Your task to perform on an android device: find which apps use the phone's location Image 0: 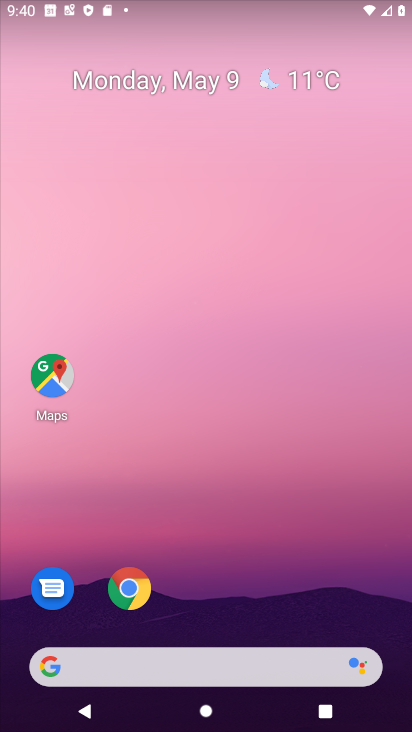
Step 0: drag from (230, 675) to (347, 250)
Your task to perform on an android device: find which apps use the phone's location Image 1: 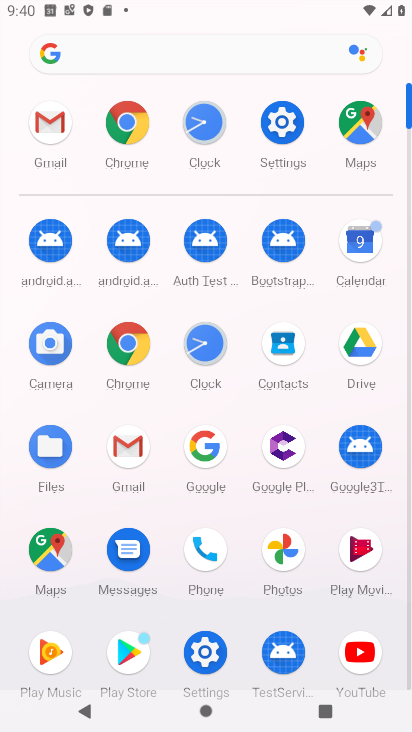
Step 1: click (285, 124)
Your task to perform on an android device: find which apps use the phone's location Image 2: 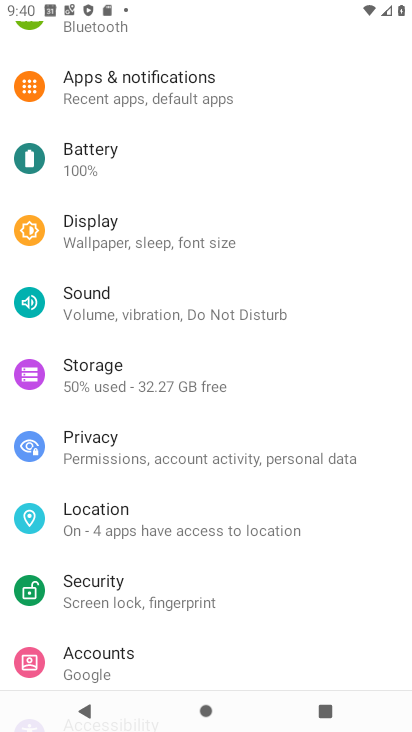
Step 2: click (110, 525)
Your task to perform on an android device: find which apps use the phone's location Image 3: 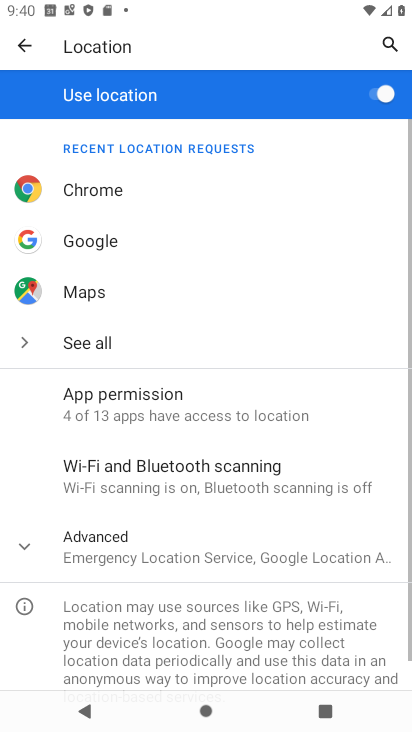
Step 3: click (135, 405)
Your task to perform on an android device: find which apps use the phone's location Image 4: 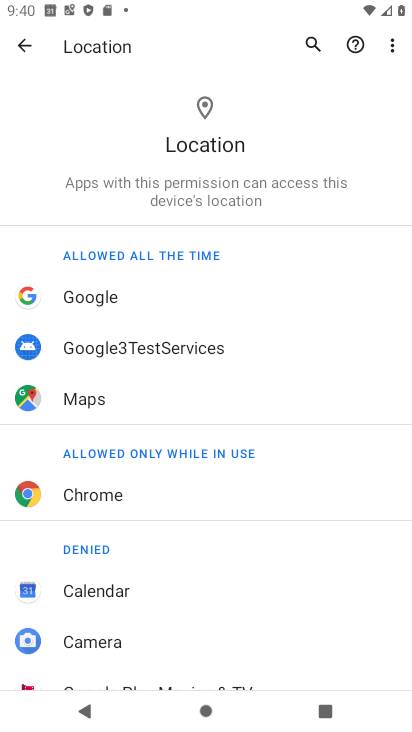
Step 4: drag from (166, 584) to (355, 134)
Your task to perform on an android device: find which apps use the phone's location Image 5: 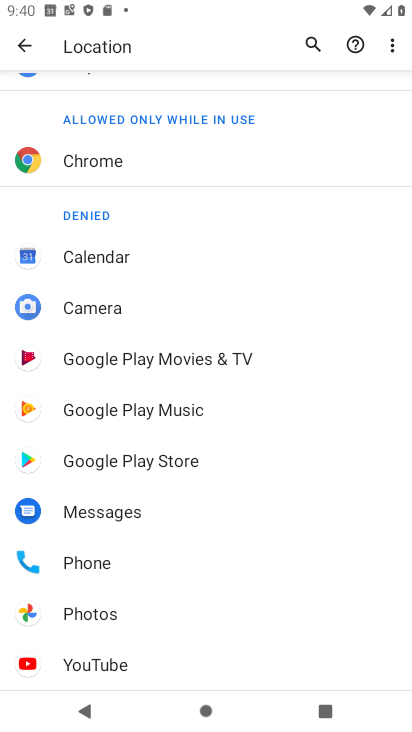
Step 5: click (81, 561)
Your task to perform on an android device: find which apps use the phone's location Image 6: 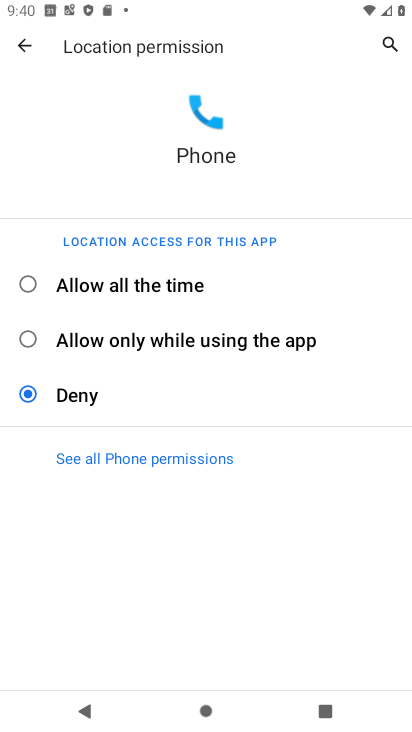
Step 6: task complete